Your task to perform on an android device: Open Google Chrome and click the shortcut for Amazon.com Image 0: 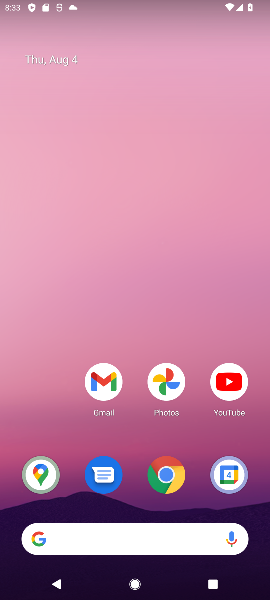
Step 0: drag from (135, 471) to (85, 216)
Your task to perform on an android device: Open Google Chrome and click the shortcut for Amazon.com Image 1: 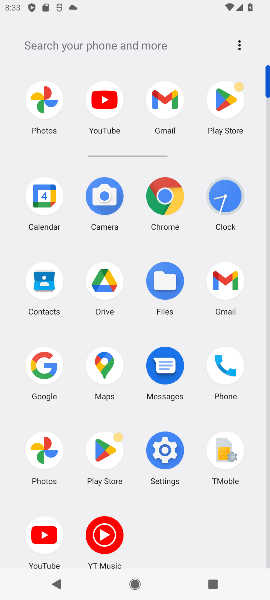
Step 1: click (161, 192)
Your task to perform on an android device: Open Google Chrome and click the shortcut for Amazon.com Image 2: 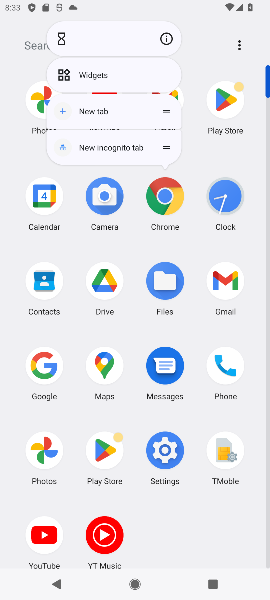
Step 2: click (173, 44)
Your task to perform on an android device: Open Google Chrome and click the shortcut for Amazon.com Image 3: 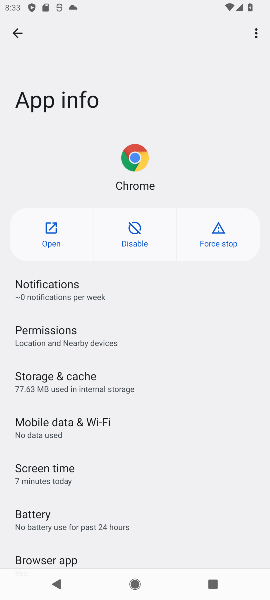
Step 3: click (51, 227)
Your task to perform on an android device: Open Google Chrome and click the shortcut for Amazon.com Image 4: 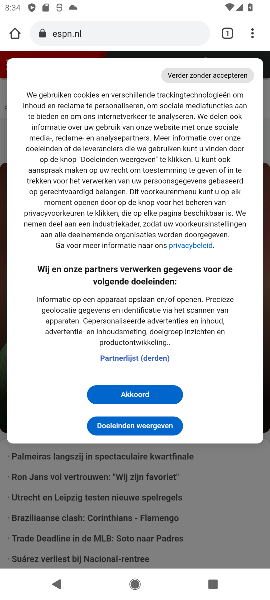
Step 4: click (135, 317)
Your task to perform on an android device: Open Google Chrome and click the shortcut for Amazon.com Image 5: 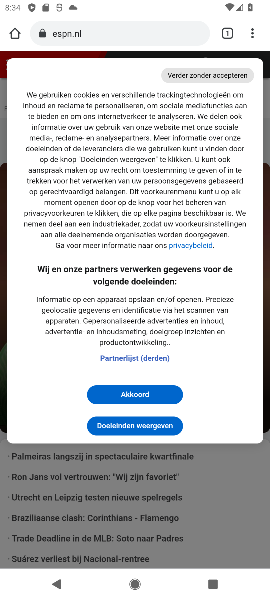
Step 5: drag from (249, 29) to (197, 108)
Your task to perform on an android device: Open Google Chrome and click the shortcut for Amazon.com Image 6: 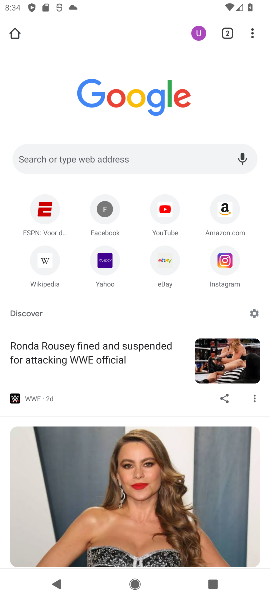
Step 6: click (226, 206)
Your task to perform on an android device: Open Google Chrome and click the shortcut for Amazon.com Image 7: 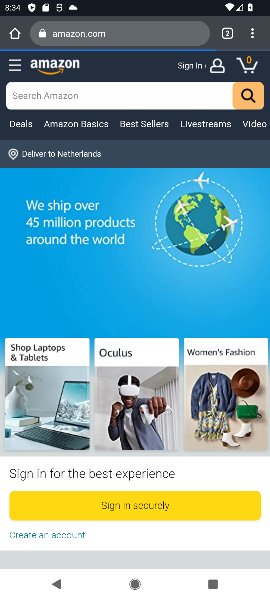
Step 7: task complete